Your task to perform on an android device: turn on notifications settings in the gmail app Image 0: 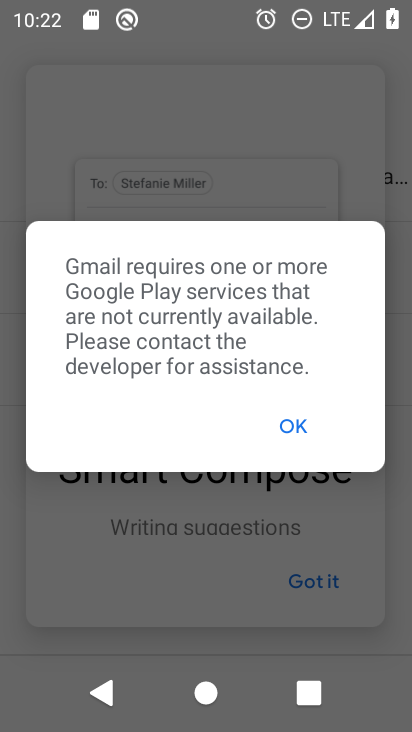
Step 0: press home button
Your task to perform on an android device: turn on notifications settings in the gmail app Image 1: 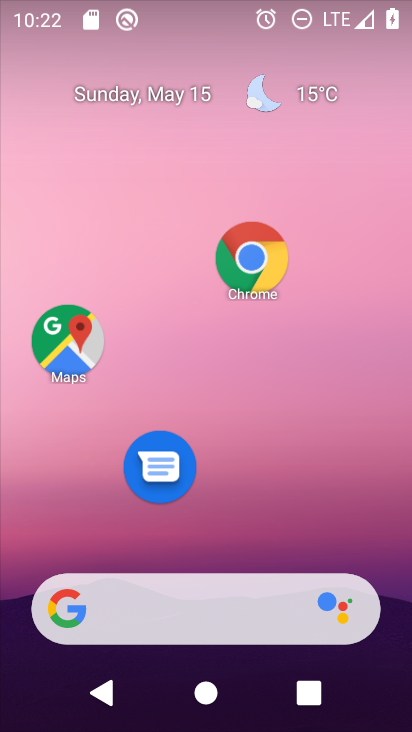
Step 1: drag from (224, 553) to (182, 270)
Your task to perform on an android device: turn on notifications settings in the gmail app Image 2: 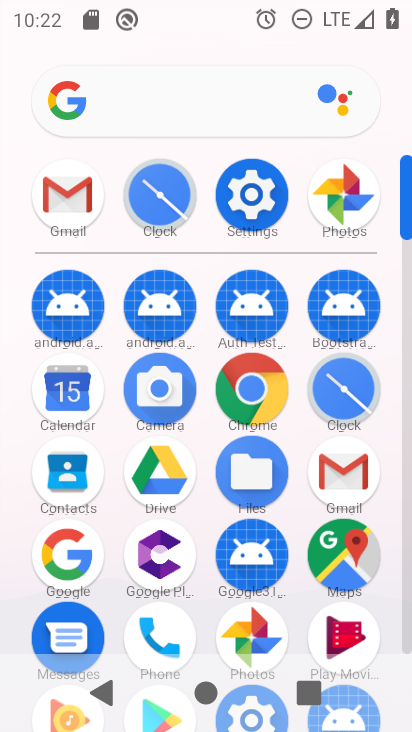
Step 2: click (259, 223)
Your task to perform on an android device: turn on notifications settings in the gmail app Image 3: 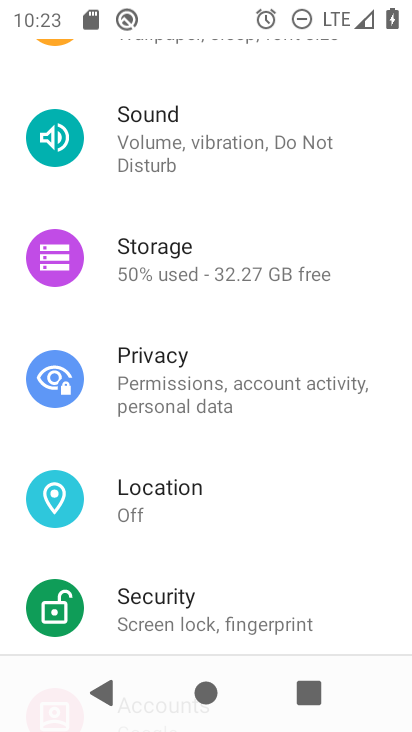
Step 3: drag from (339, 70) to (360, 501)
Your task to perform on an android device: turn on notifications settings in the gmail app Image 4: 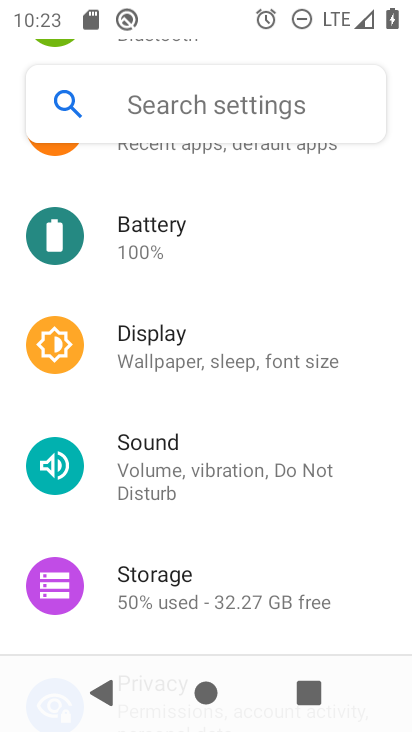
Step 4: drag from (166, 198) to (192, 598)
Your task to perform on an android device: turn on notifications settings in the gmail app Image 5: 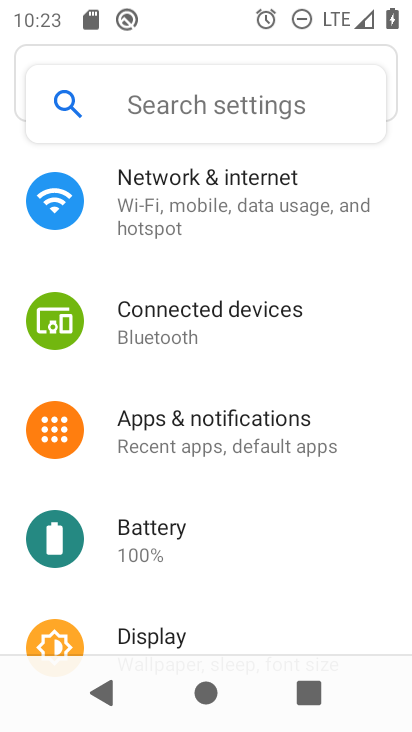
Step 5: click (157, 436)
Your task to perform on an android device: turn on notifications settings in the gmail app Image 6: 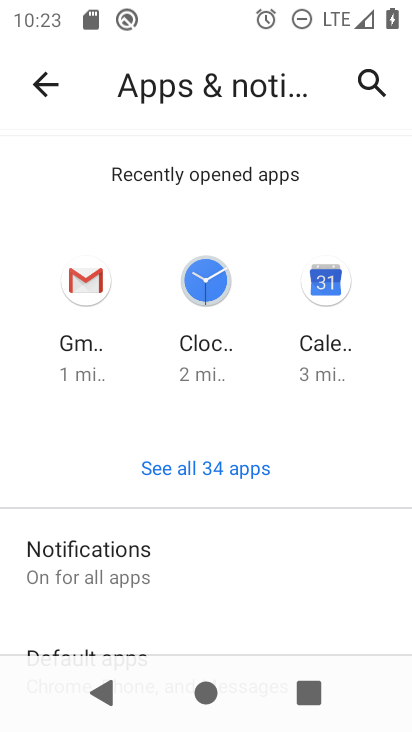
Step 6: click (95, 280)
Your task to perform on an android device: turn on notifications settings in the gmail app Image 7: 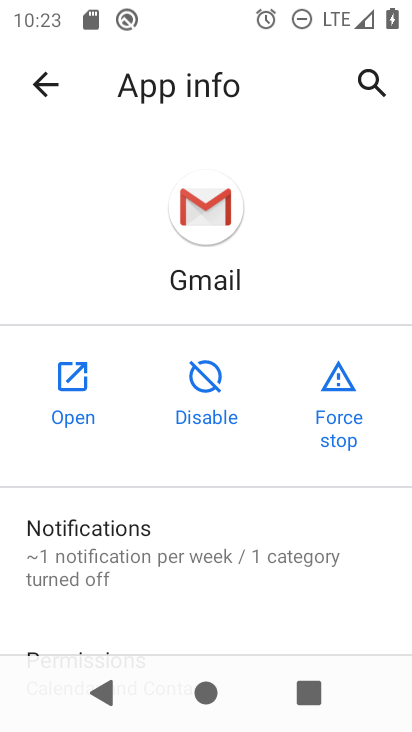
Step 7: click (138, 562)
Your task to perform on an android device: turn on notifications settings in the gmail app Image 8: 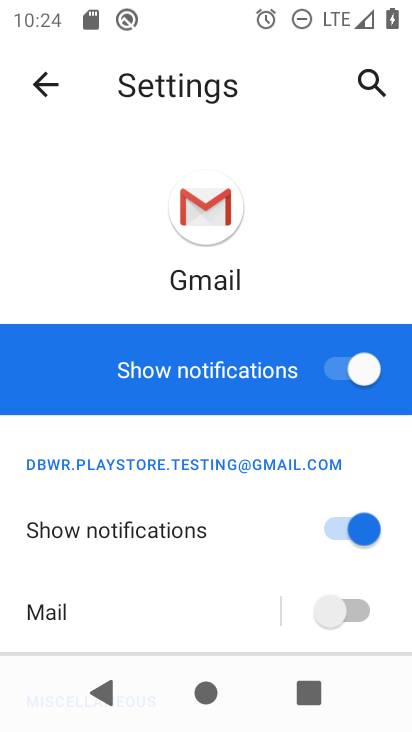
Step 8: task complete